Your task to perform on an android device: See recent photos Image 0: 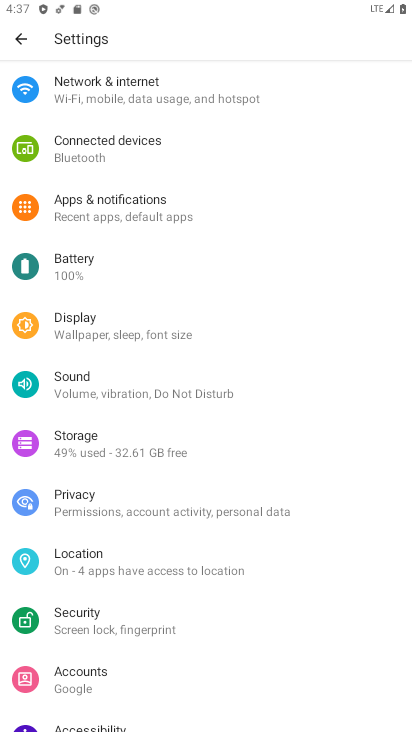
Step 0: press back button
Your task to perform on an android device: See recent photos Image 1: 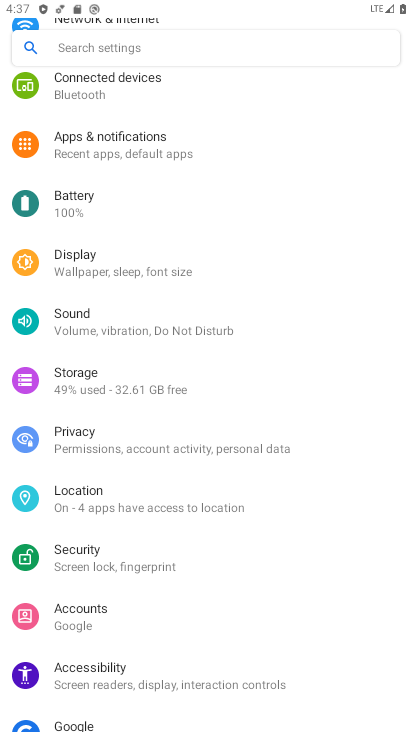
Step 1: press back button
Your task to perform on an android device: See recent photos Image 2: 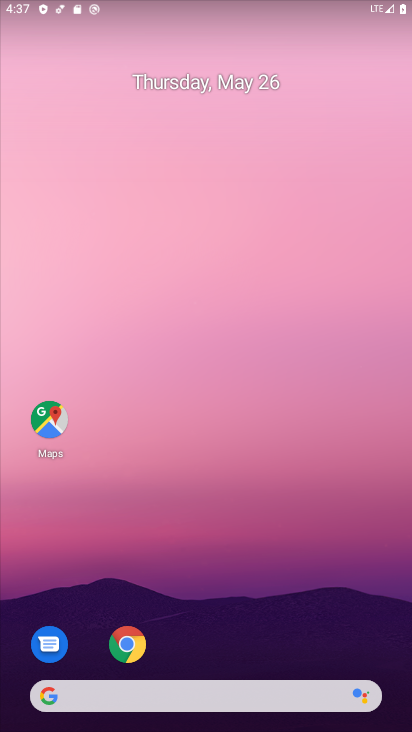
Step 2: drag from (251, 571) to (245, 21)
Your task to perform on an android device: See recent photos Image 3: 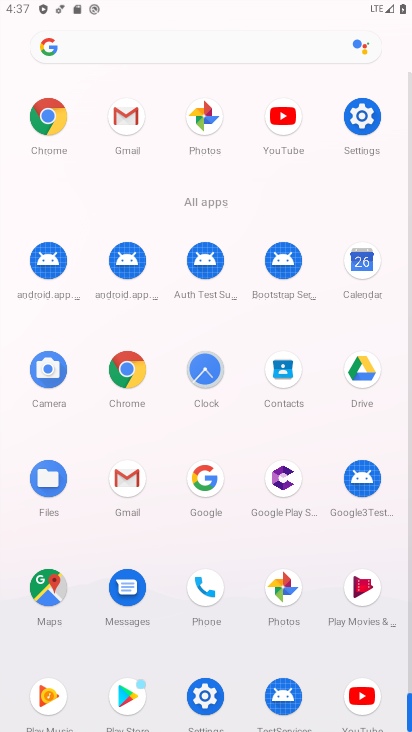
Step 3: click (285, 585)
Your task to perform on an android device: See recent photos Image 4: 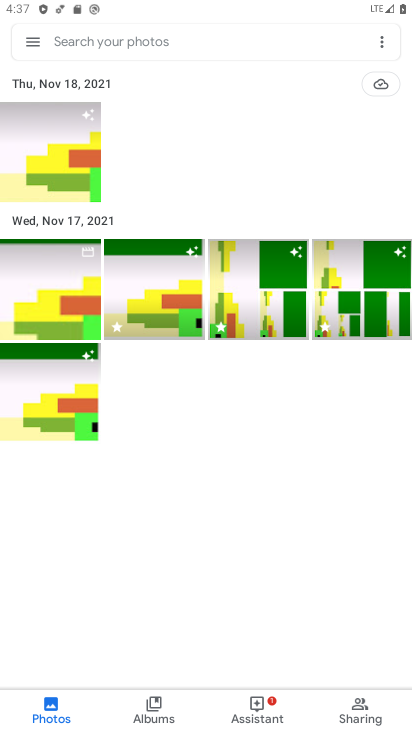
Step 4: click (60, 702)
Your task to perform on an android device: See recent photos Image 5: 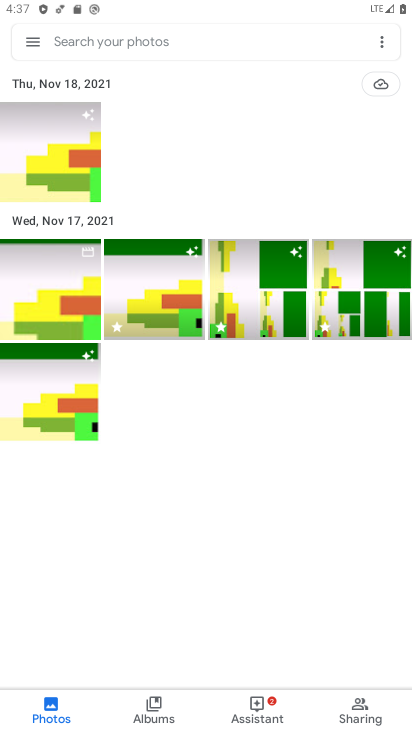
Step 5: task complete